Your task to perform on an android device: open app "WhatsApp Messenger" (install if not already installed) Image 0: 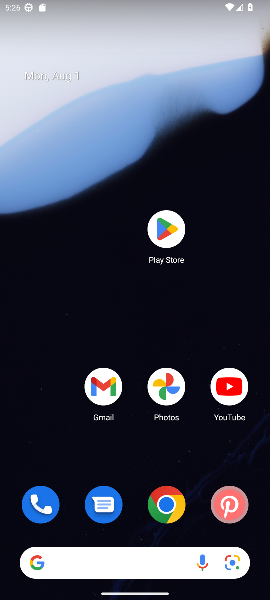
Step 0: click (166, 219)
Your task to perform on an android device: open app "WhatsApp Messenger" (install if not already installed) Image 1: 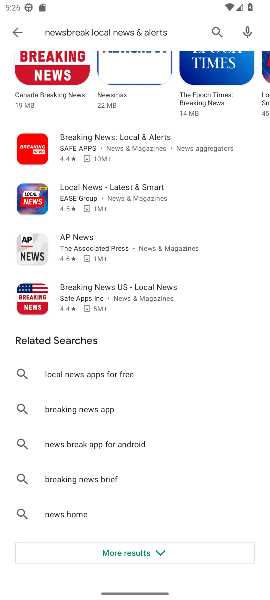
Step 1: click (210, 29)
Your task to perform on an android device: open app "WhatsApp Messenger" (install if not already installed) Image 2: 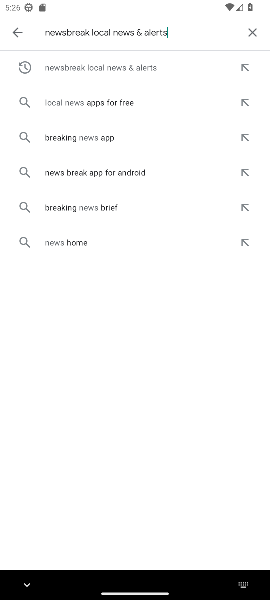
Step 2: click (252, 30)
Your task to perform on an android device: open app "WhatsApp Messenger" (install if not already installed) Image 3: 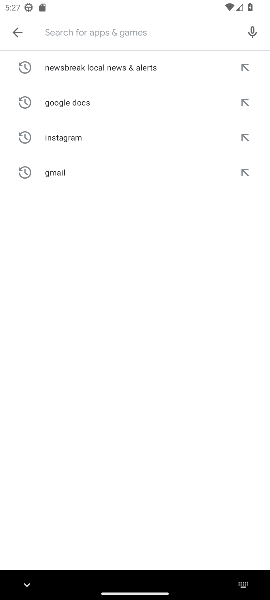
Step 3: type "WhatsApp Messenger"
Your task to perform on an android device: open app "WhatsApp Messenger" (install if not already installed) Image 4: 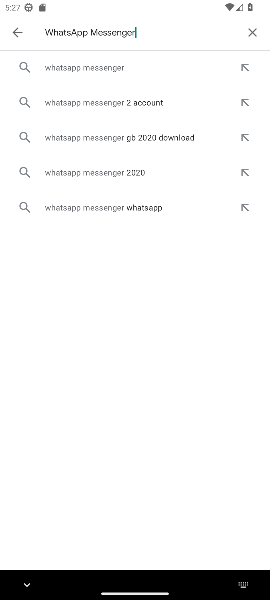
Step 4: click (101, 68)
Your task to perform on an android device: open app "WhatsApp Messenger" (install if not already installed) Image 5: 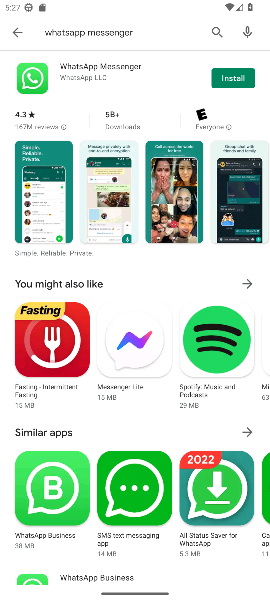
Step 5: click (234, 69)
Your task to perform on an android device: open app "WhatsApp Messenger" (install if not already installed) Image 6: 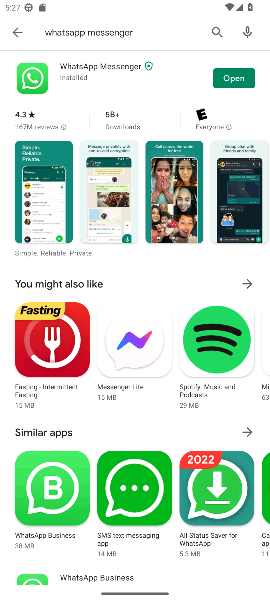
Step 6: click (234, 73)
Your task to perform on an android device: open app "WhatsApp Messenger" (install if not already installed) Image 7: 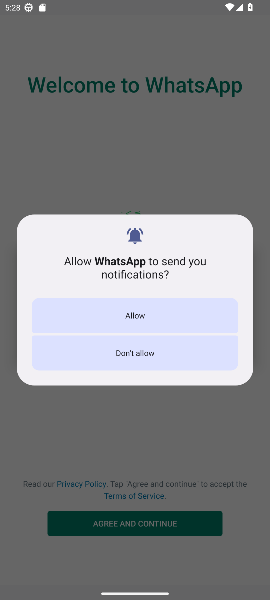
Step 7: task complete